Your task to perform on an android device: Go to Yahoo.com Image 0: 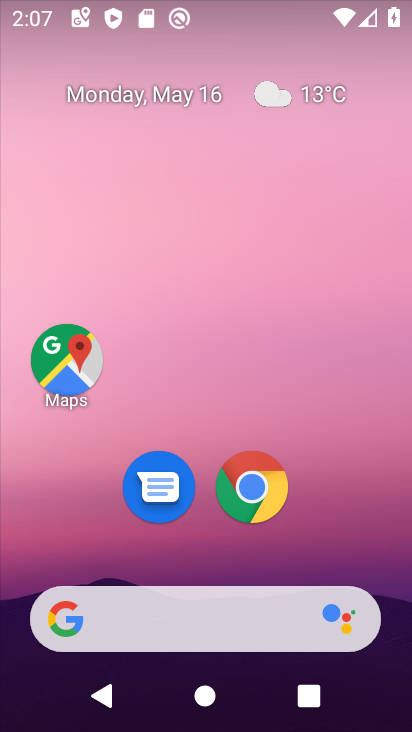
Step 0: drag from (343, 498) to (268, 4)
Your task to perform on an android device: Go to Yahoo.com Image 1: 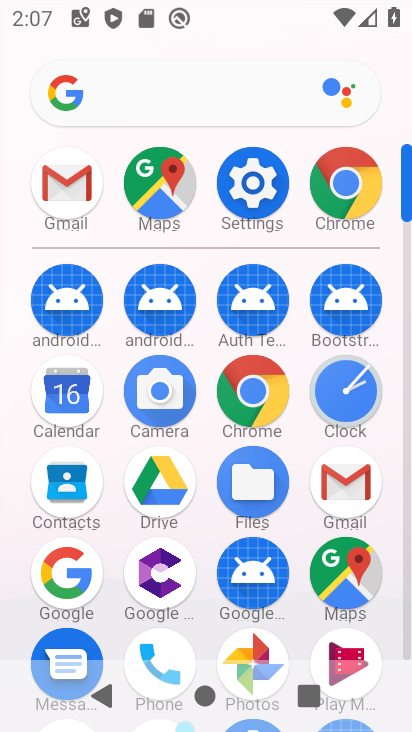
Step 1: click (251, 391)
Your task to perform on an android device: Go to Yahoo.com Image 2: 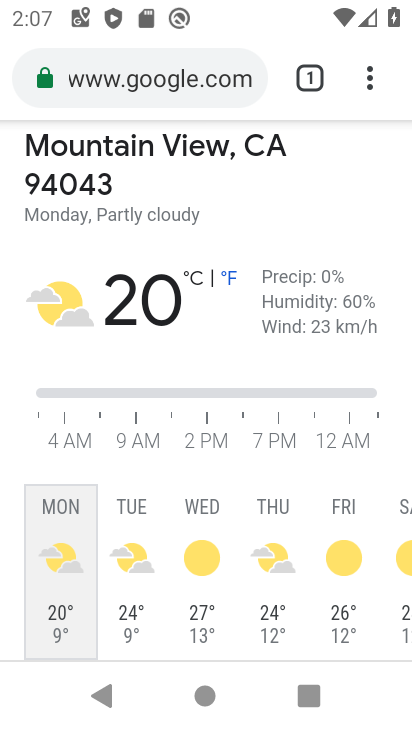
Step 2: click (190, 81)
Your task to perform on an android device: Go to Yahoo.com Image 3: 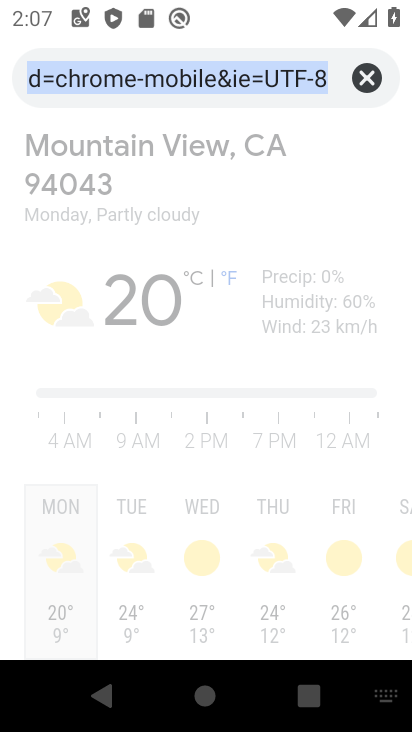
Step 3: click (351, 82)
Your task to perform on an android device: Go to Yahoo.com Image 4: 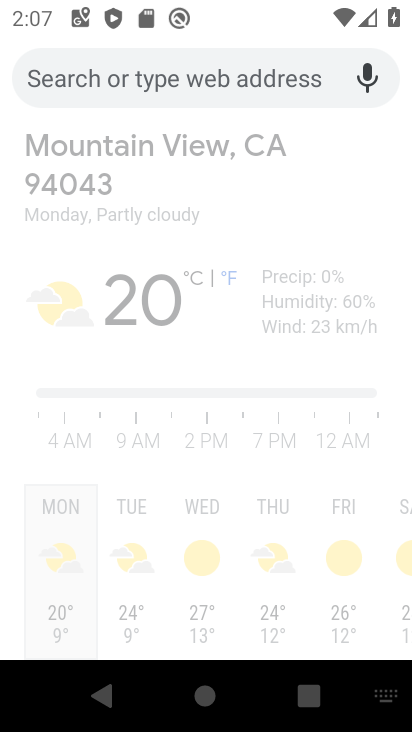
Step 4: type " Yahoo.com"
Your task to perform on an android device: Go to Yahoo.com Image 5: 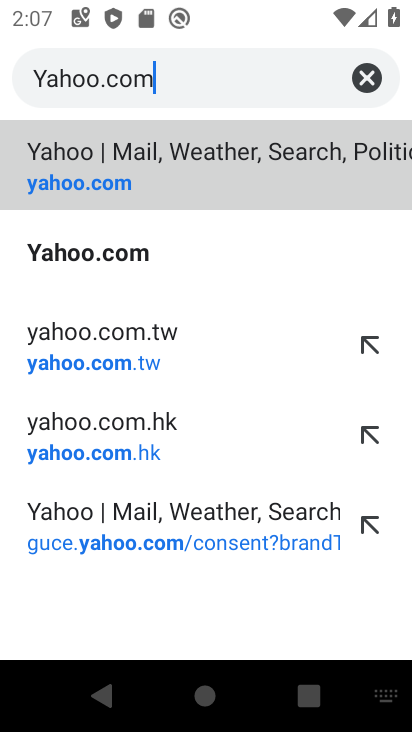
Step 5: click (196, 165)
Your task to perform on an android device: Go to Yahoo.com Image 6: 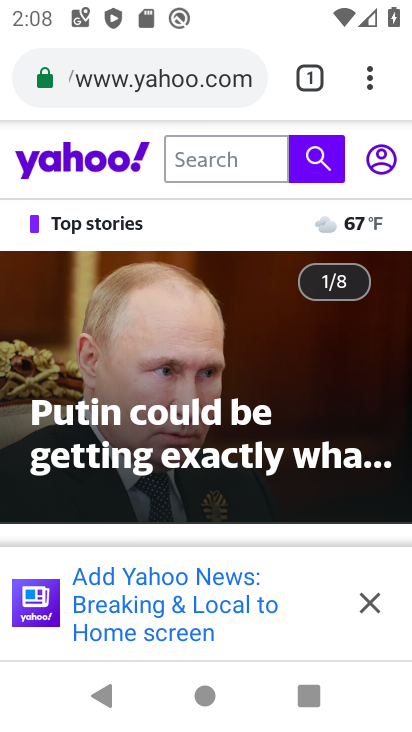
Step 6: click (373, 598)
Your task to perform on an android device: Go to Yahoo.com Image 7: 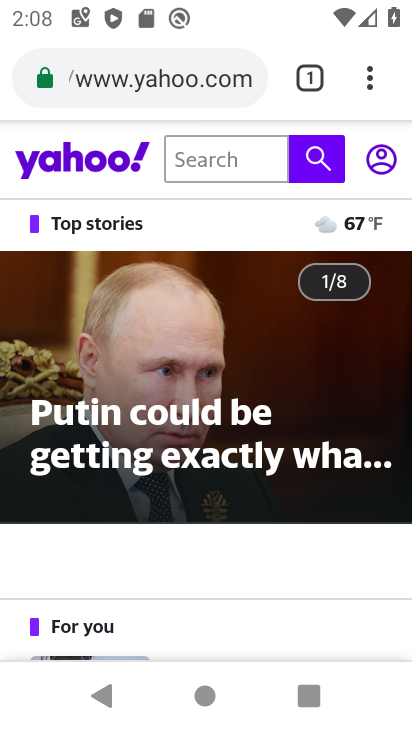
Step 7: task complete